Your task to perform on an android device: Open the web browser Image 0: 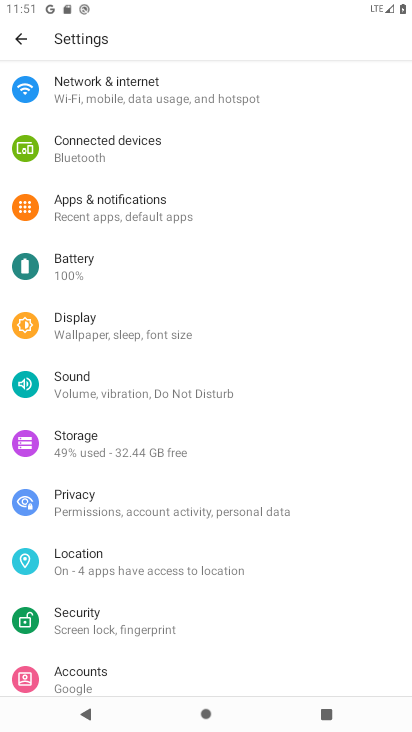
Step 0: press home button
Your task to perform on an android device: Open the web browser Image 1: 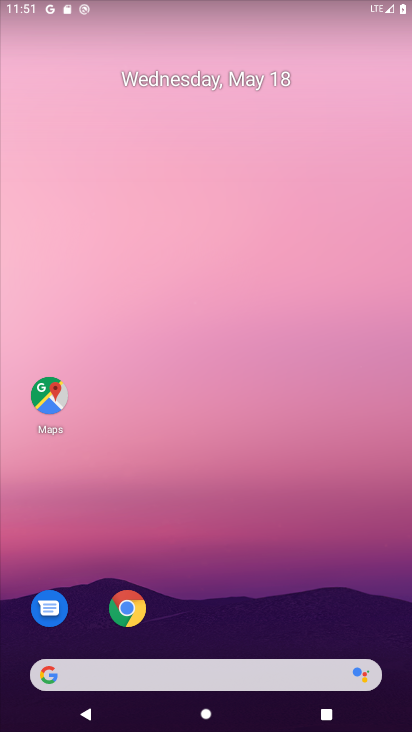
Step 1: drag from (197, 576) to (194, 506)
Your task to perform on an android device: Open the web browser Image 2: 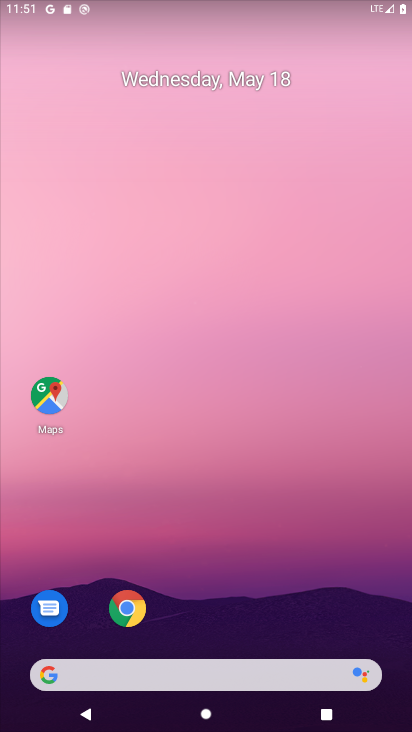
Step 2: click (122, 620)
Your task to perform on an android device: Open the web browser Image 3: 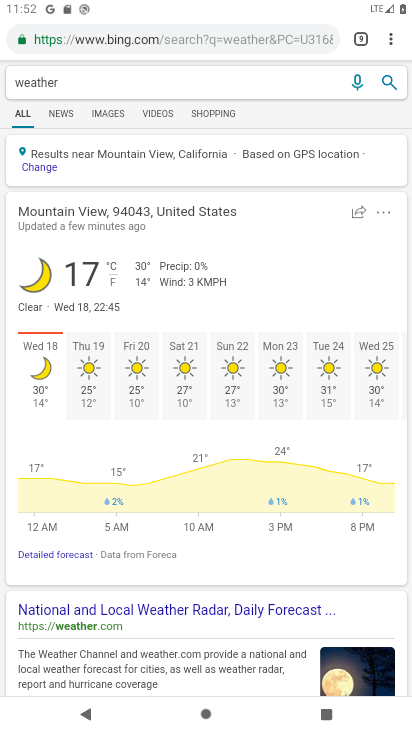
Step 3: task complete